Your task to perform on an android device: turn off data saver in the chrome app Image 0: 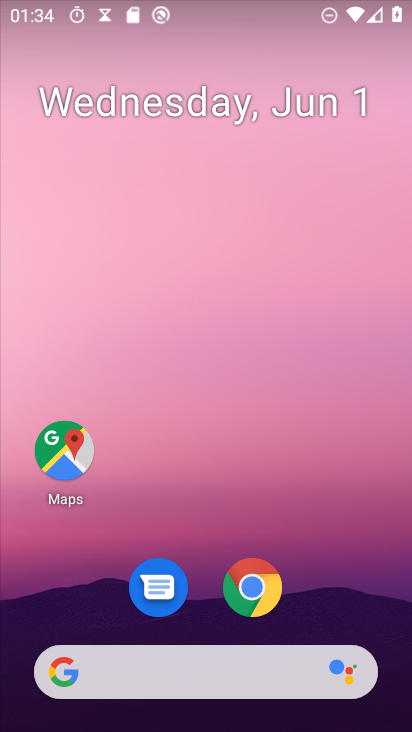
Step 0: click (243, 576)
Your task to perform on an android device: turn off data saver in the chrome app Image 1: 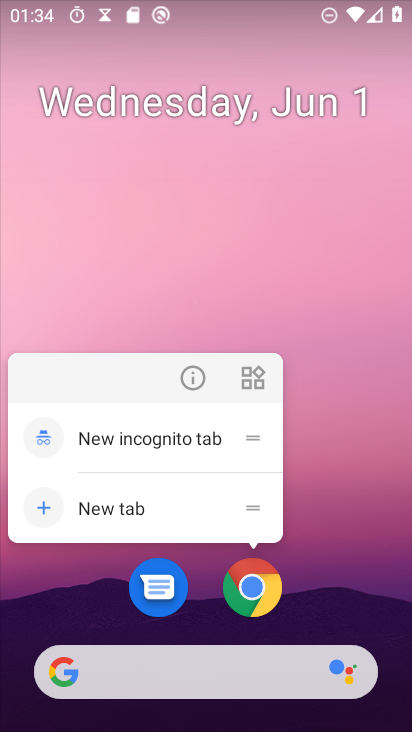
Step 1: click (261, 597)
Your task to perform on an android device: turn off data saver in the chrome app Image 2: 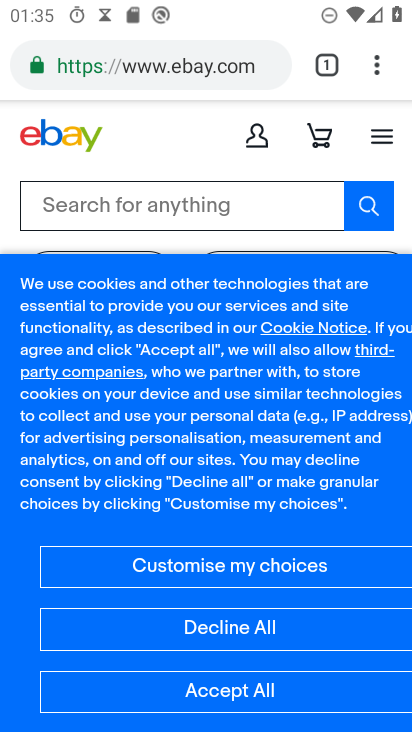
Step 2: click (367, 69)
Your task to perform on an android device: turn off data saver in the chrome app Image 3: 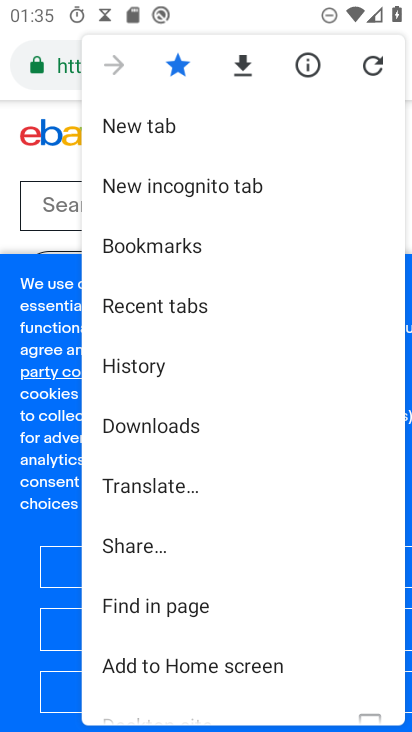
Step 3: drag from (242, 641) to (278, 150)
Your task to perform on an android device: turn off data saver in the chrome app Image 4: 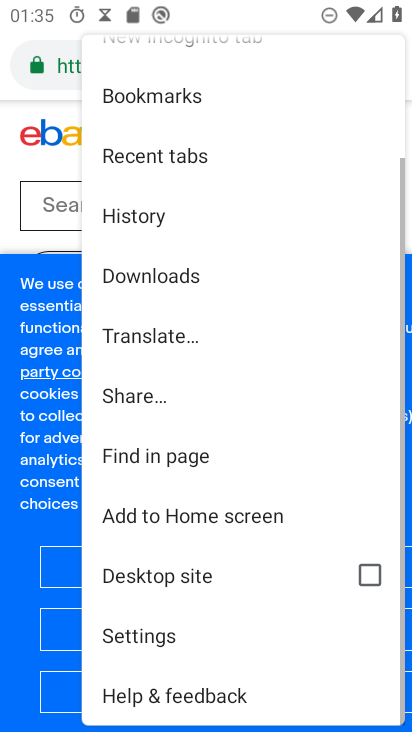
Step 4: click (197, 630)
Your task to perform on an android device: turn off data saver in the chrome app Image 5: 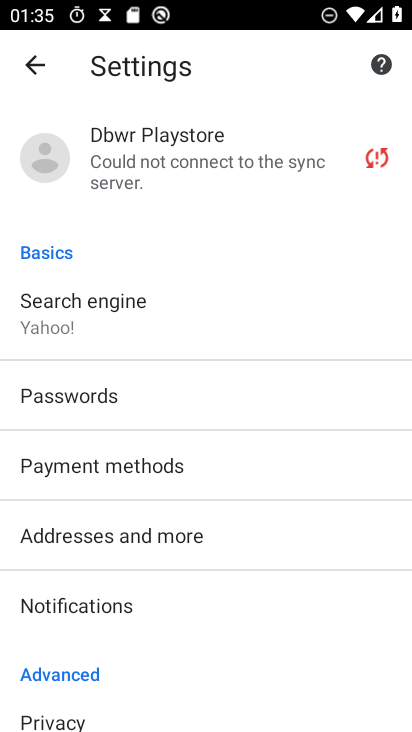
Step 5: drag from (124, 701) to (177, 207)
Your task to perform on an android device: turn off data saver in the chrome app Image 6: 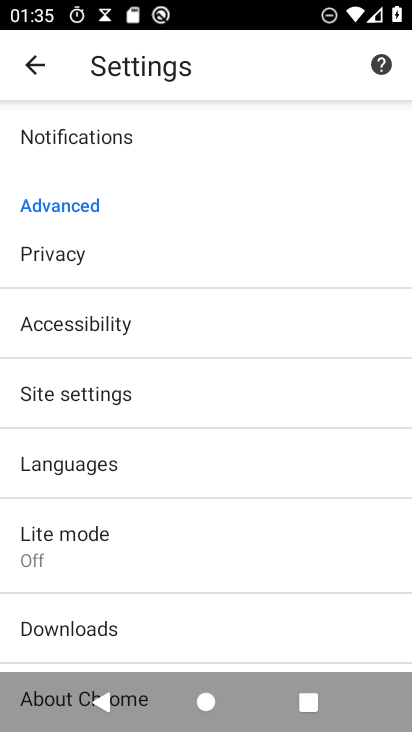
Step 6: click (59, 518)
Your task to perform on an android device: turn off data saver in the chrome app Image 7: 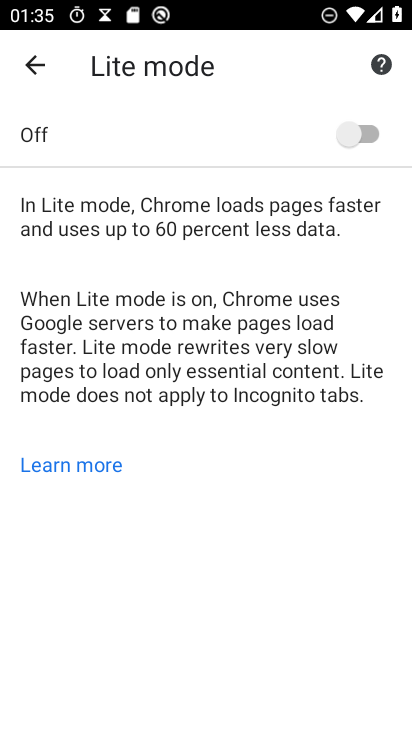
Step 7: task complete